Your task to perform on an android device: toggle data saver in the chrome app Image 0: 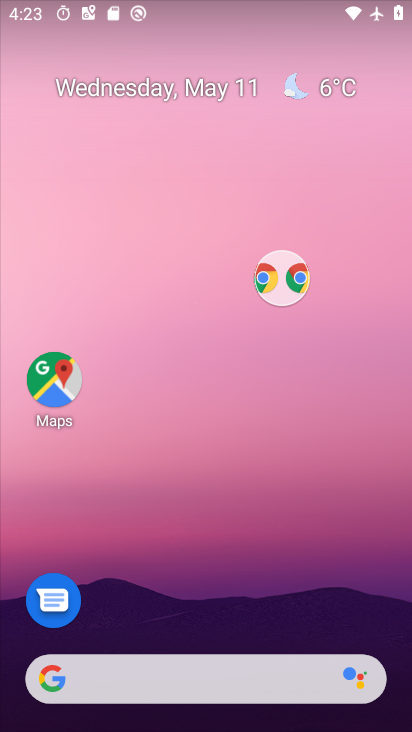
Step 0: drag from (352, 645) to (104, 122)
Your task to perform on an android device: toggle data saver in the chrome app Image 1: 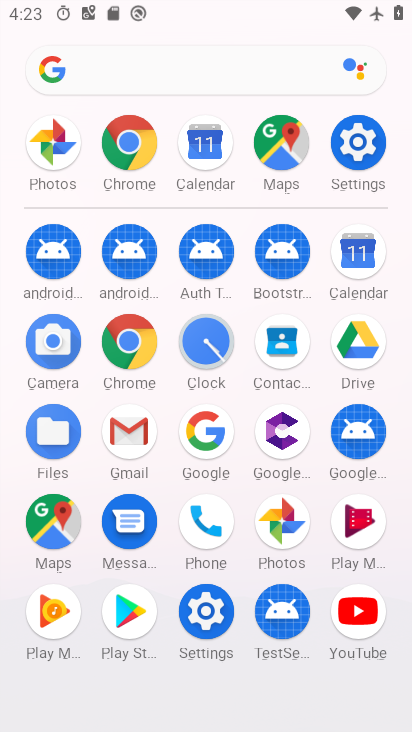
Step 1: click (123, 150)
Your task to perform on an android device: toggle data saver in the chrome app Image 2: 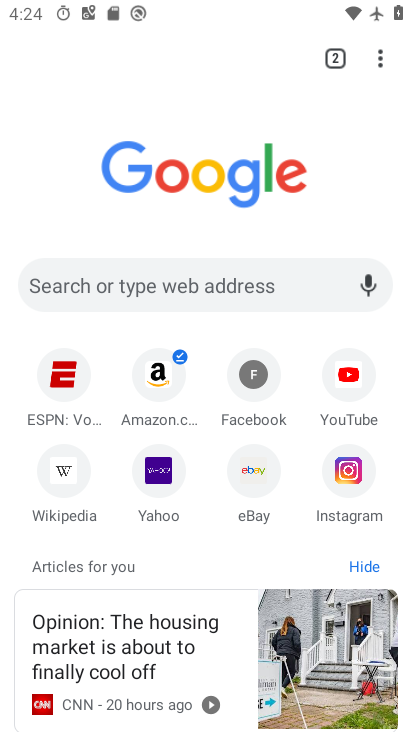
Step 2: press home button
Your task to perform on an android device: toggle data saver in the chrome app Image 3: 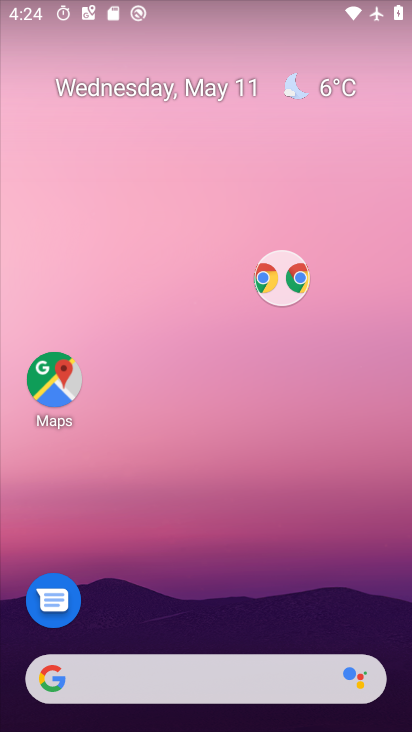
Step 3: drag from (301, 527) to (270, 195)
Your task to perform on an android device: toggle data saver in the chrome app Image 4: 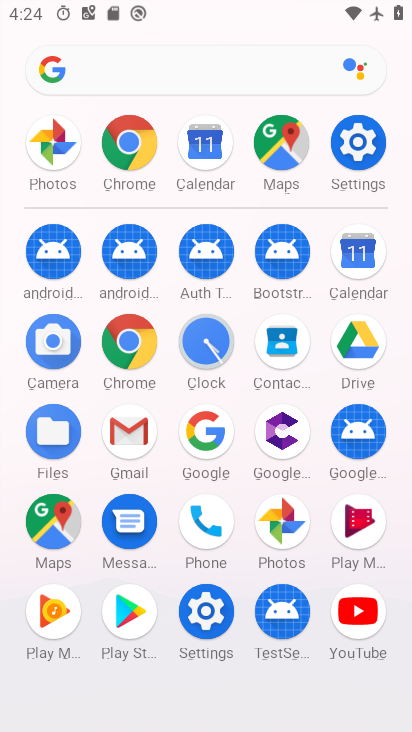
Step 4: click (125, 135)
Your task to perform on an android device: toggle data saver in the chrome app Image 5: 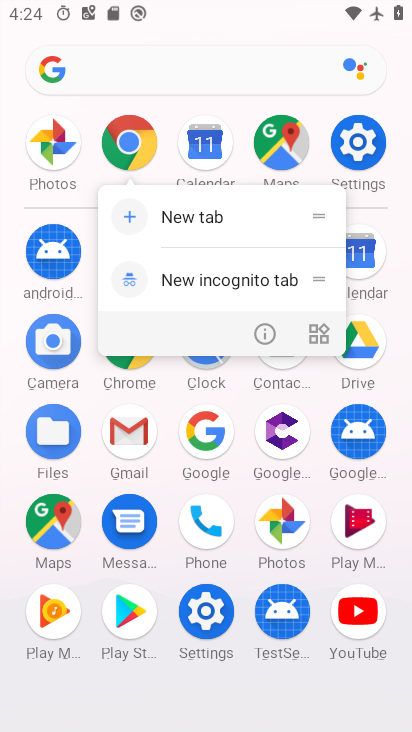
Step 5: click (124, 134)
Your task to perform on an android device: toggle data saver in the chrome app Image 6: 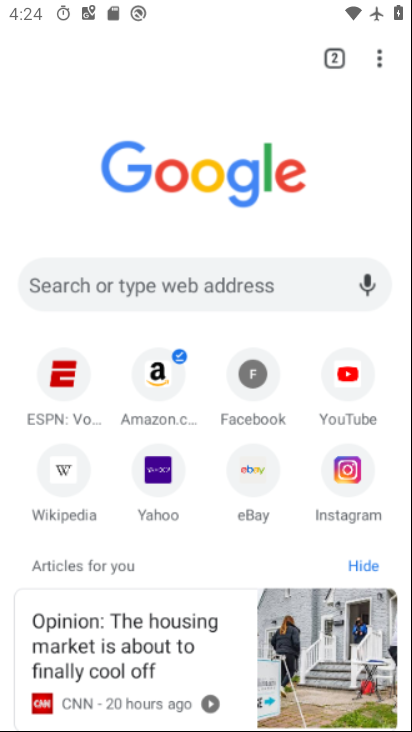
Step 6: click (121, 133)
Your task to perform on an android device: toggle data saver in the chrome app Image 7: 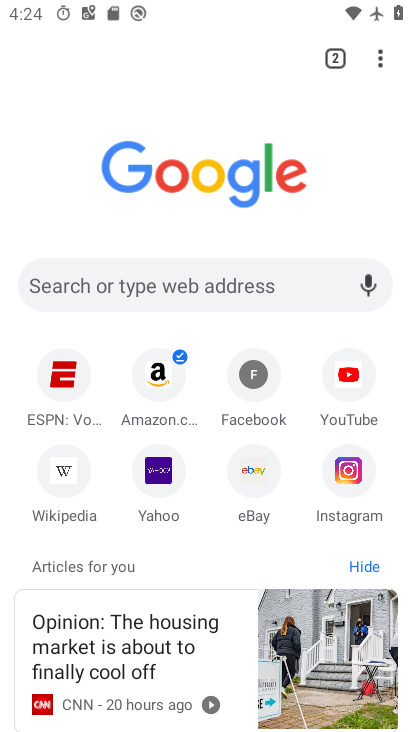
Step 7: drag from (380, 64) to (297, 285)
Your task to perform on an android device: toggle data saver in the chrome app Image 8: 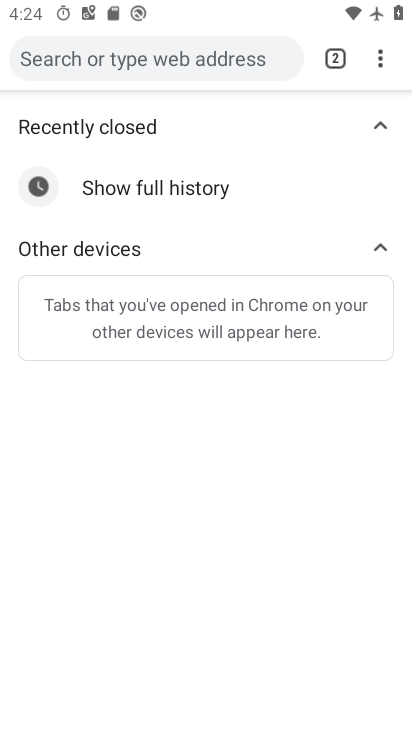
Step 8: click (376, 61)
Your task to perform on an android device: toggle data saver in the chrome app Image 9: 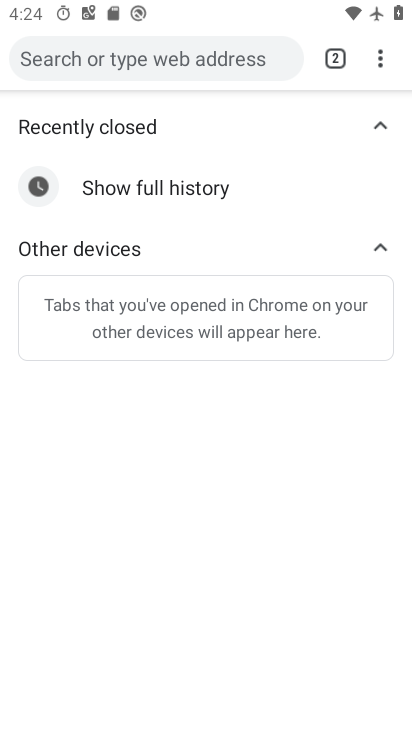
Step 9: click (382, 58)
Your task to perform on an android device: toggle data saver in the chrome app Image 10: 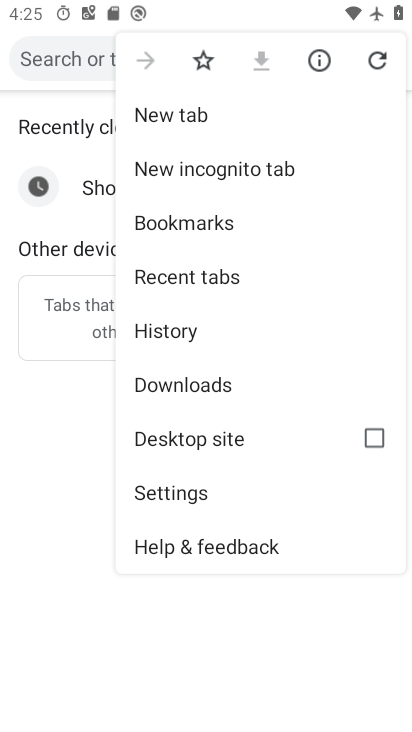
Step 10: click (179, 490)
Your task to perform on an android device: toggle data saver in the chrome app Image 11: 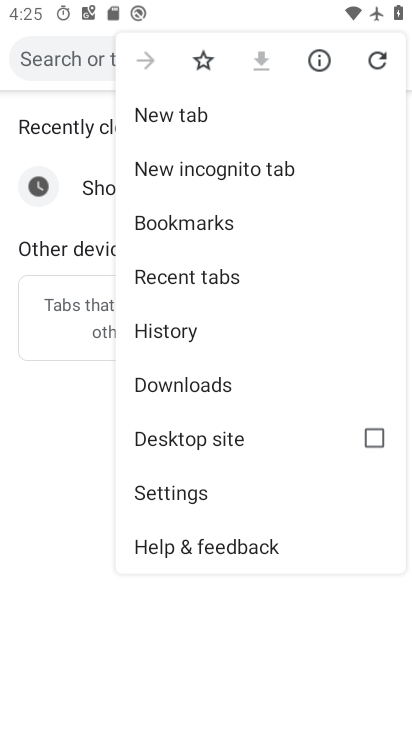
Step 11: click (180, 491)
Your task to perform on an android device: toggle data saver in the chrome app Image 12: 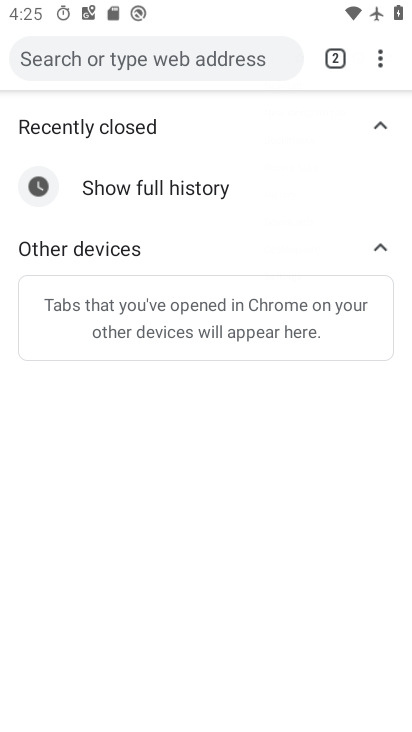
Step 12: click (179, 493)
Your task to perform on an android device: toggle data saver in the chrome app Image 13: 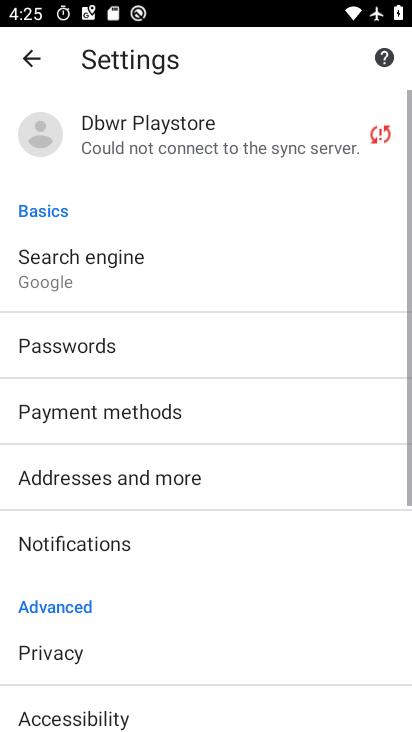
Step 13: drag from (187, 503) to (125, 20)
Your task to perform on an android device: toggle data saver in the chrome app Image 14: 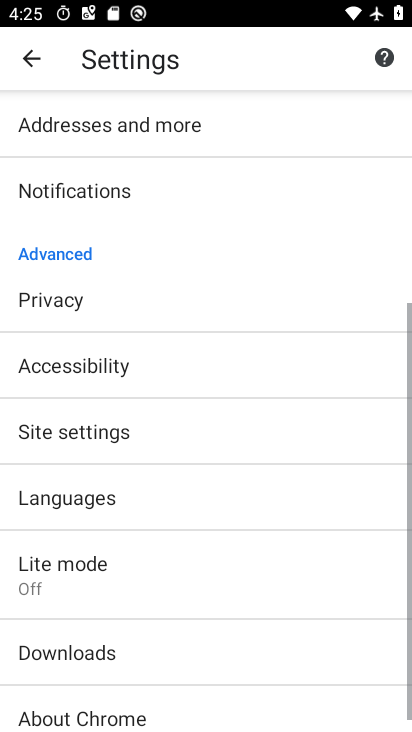
Step 14: drag from (149, 499) to (90, 87)
Your task to perform on an android device: toggle data saver in the chrome app Image 15: 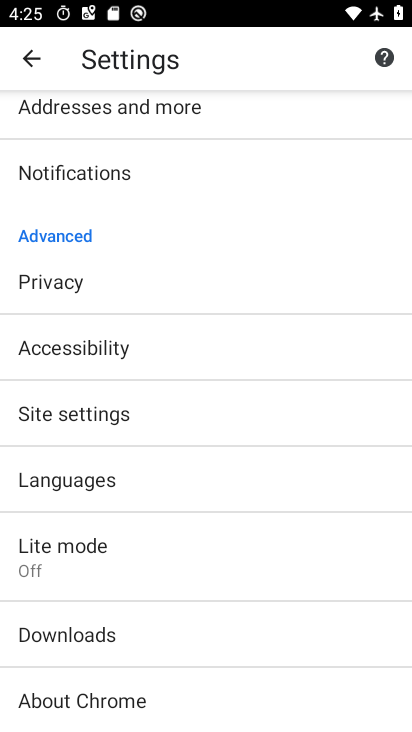
Step 15: click (65, 415)
Your task to perform on an android device: toggle data saver in the chrome app Image 16: 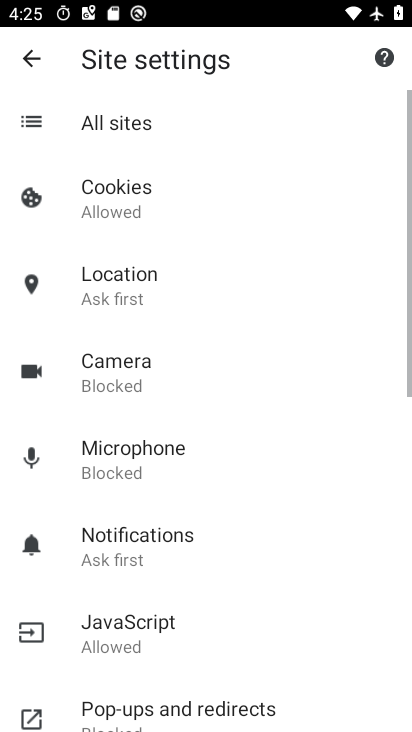
Step 16: click (30, 58)
Your task to perform on an android device: toggle data saver in the chrome app Image 17: 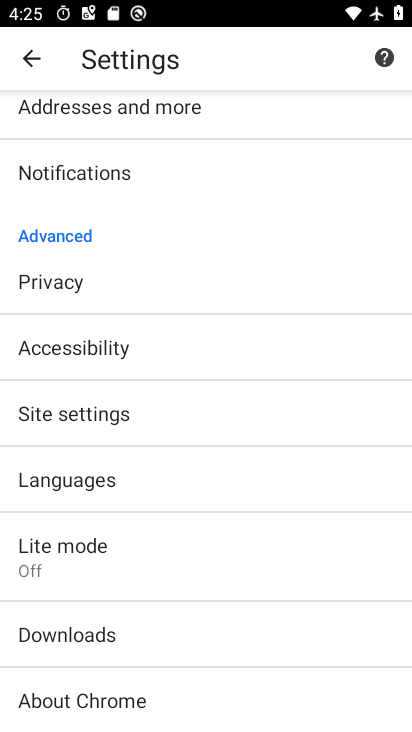
Step 17: click (67, 544)
Your task to perform on an android device: toggle data saver in the chrome app Image 18: 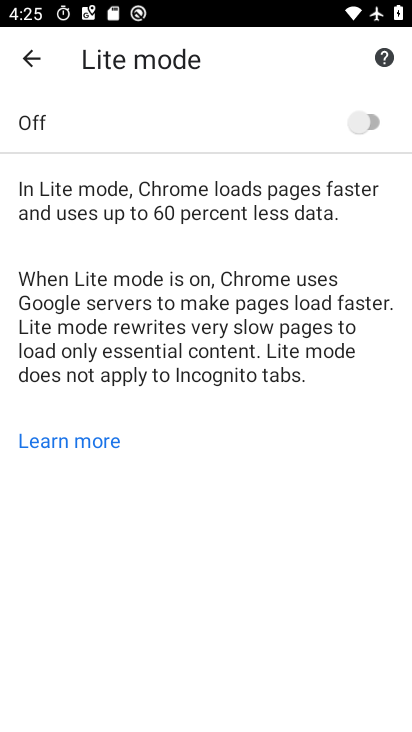
Step 18: click (356, 127)
Your task to perform on an android device: toggle data saver in the chrome app Image 19: 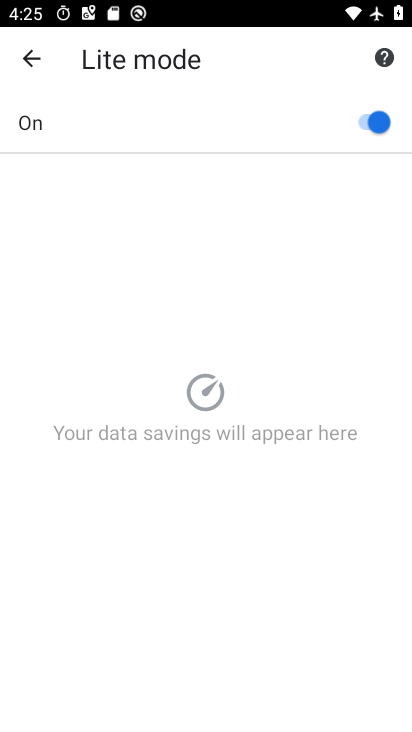
Step 19: task complete